Your task to perform on an android device: turn on notifications settings in the gmail app Image 0: 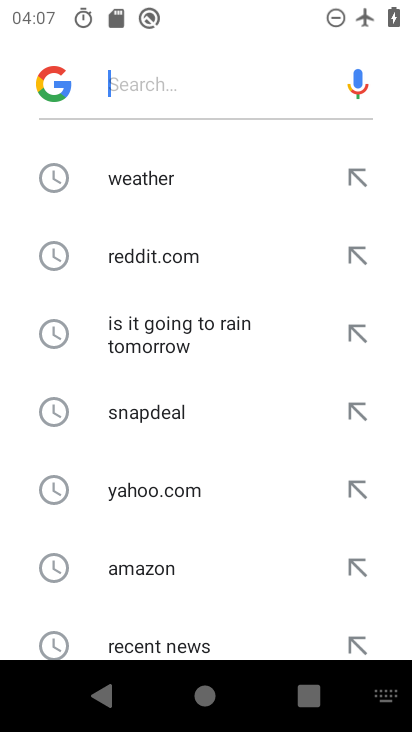
Step 0: press home button
Your task to perform on an android device: turn on notifications settings in the gmail app Image 1: 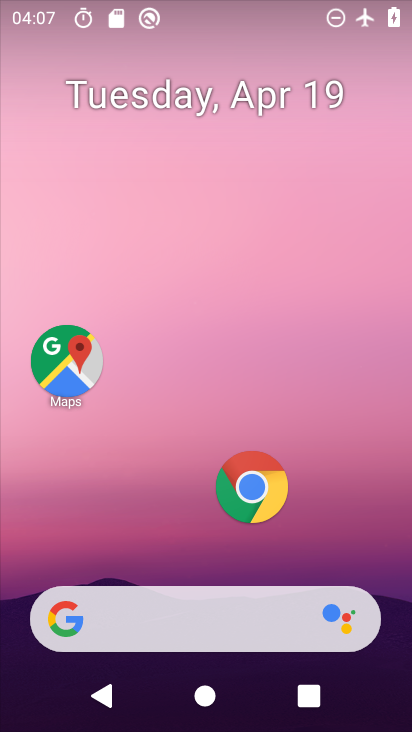
Step 1: drag from (156, 537) to (259, 6)
Your task to perform on an android device: turn on notifications settings in the gmail app Image 2: 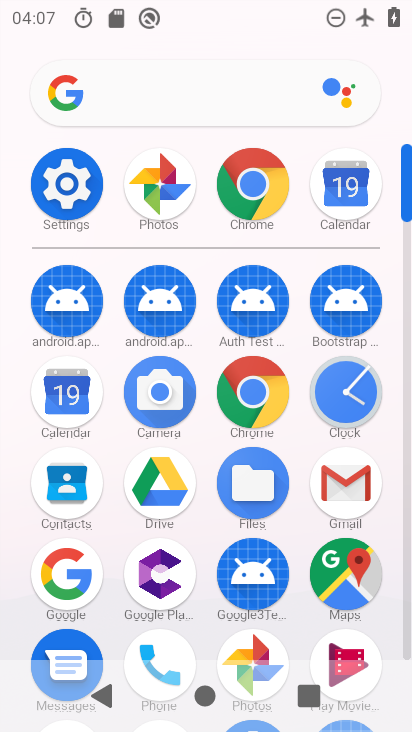
Step 2: click (338, 494)
Your task to perform on an android device: turn on notifications settings in the gmail app Image 3: 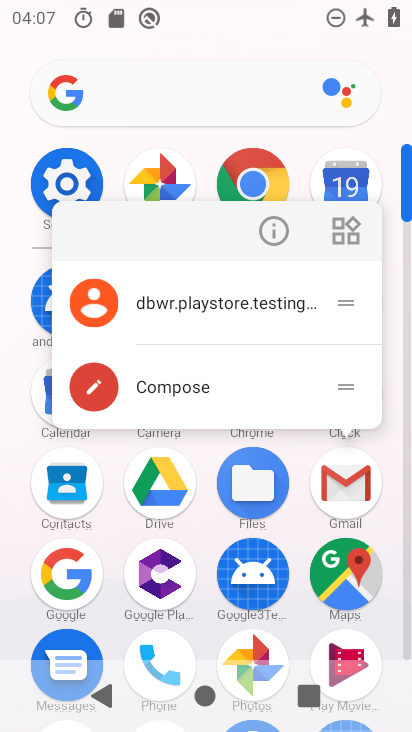
Step 3: click (271, 232)
Your task to perform on an android device: turn on notifications settings in the gmail app Image 4: 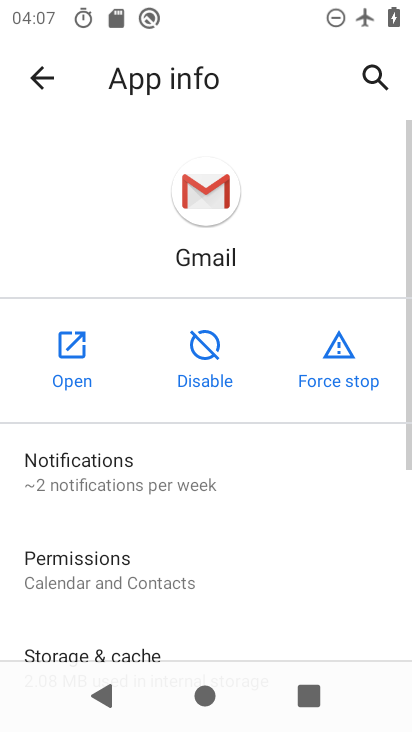
Step 4: click (119, 490)
Your task to perform on an android device: turn on notifications settings in the gmail app Image 5: 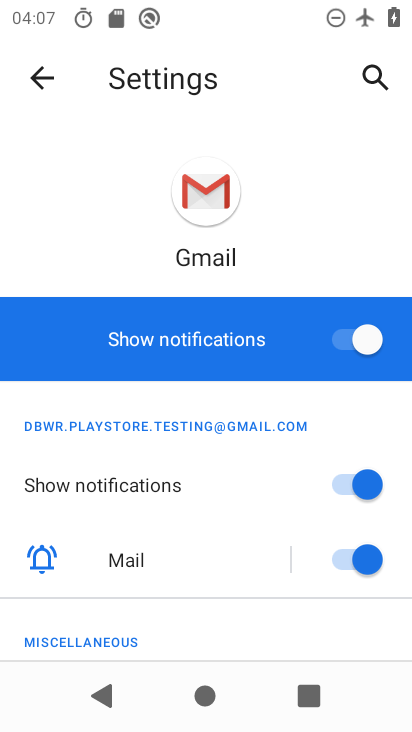
Step 5: task complete